Your task to perform on an android device: change text size in settings app Image 0: 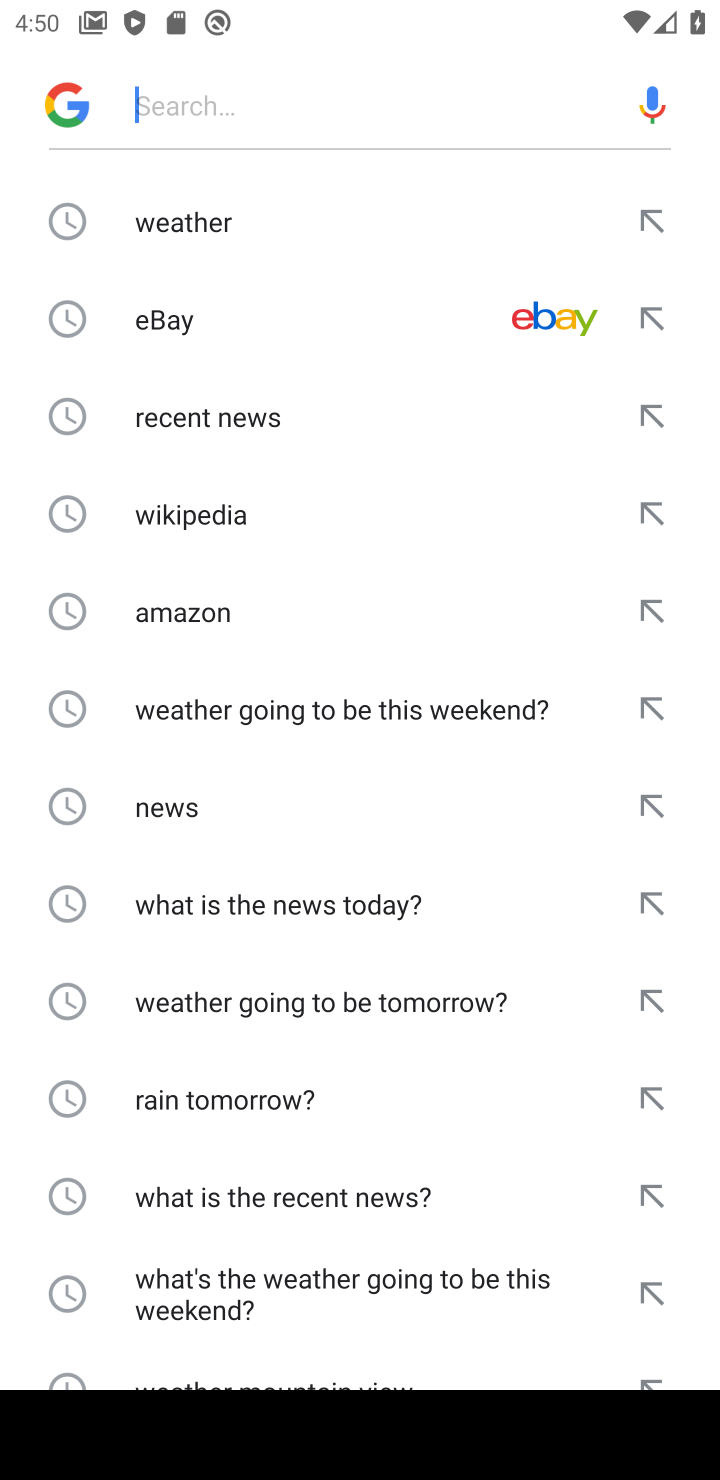
Step 0: press home button
Your task to perform on an android device: change text size in settings app Image 1: 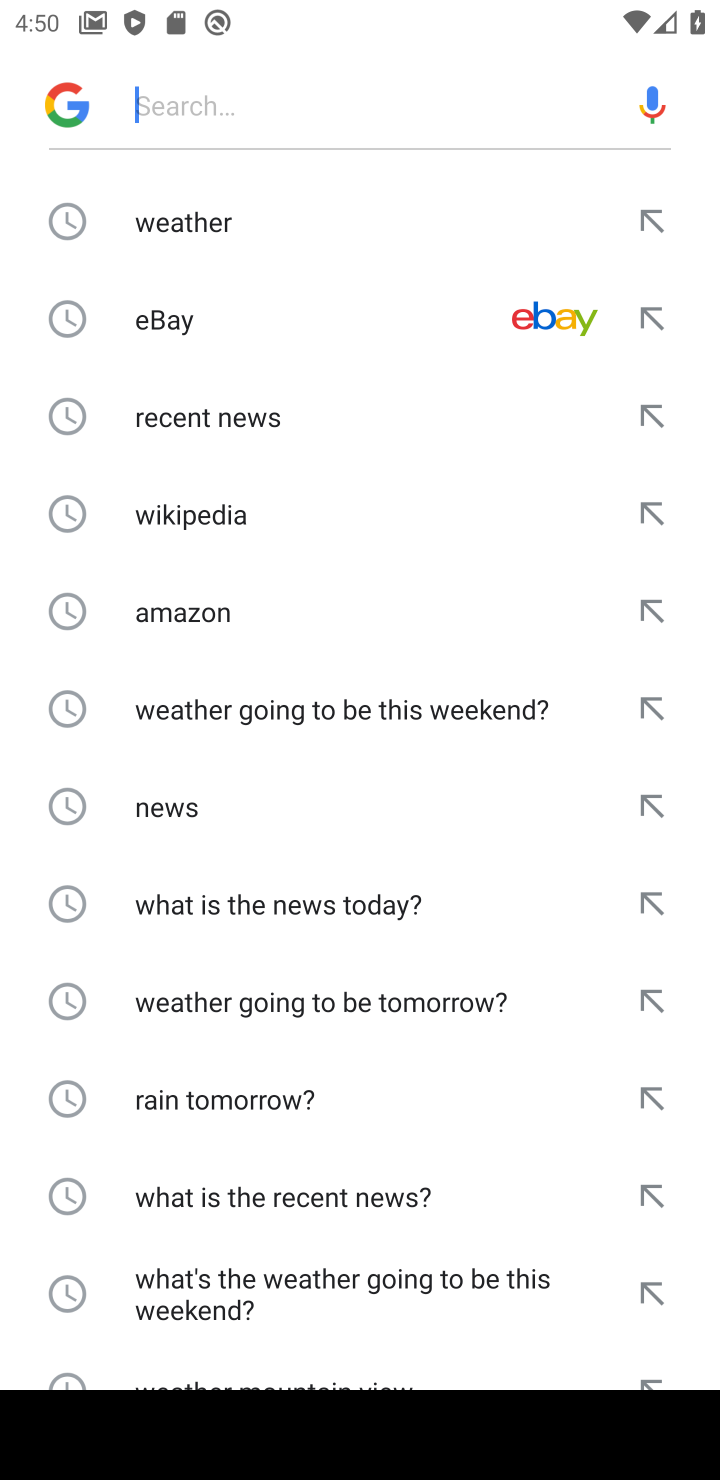
Step 1: press home button
Your task to perform on an android device: change text size in settings app Image 2: 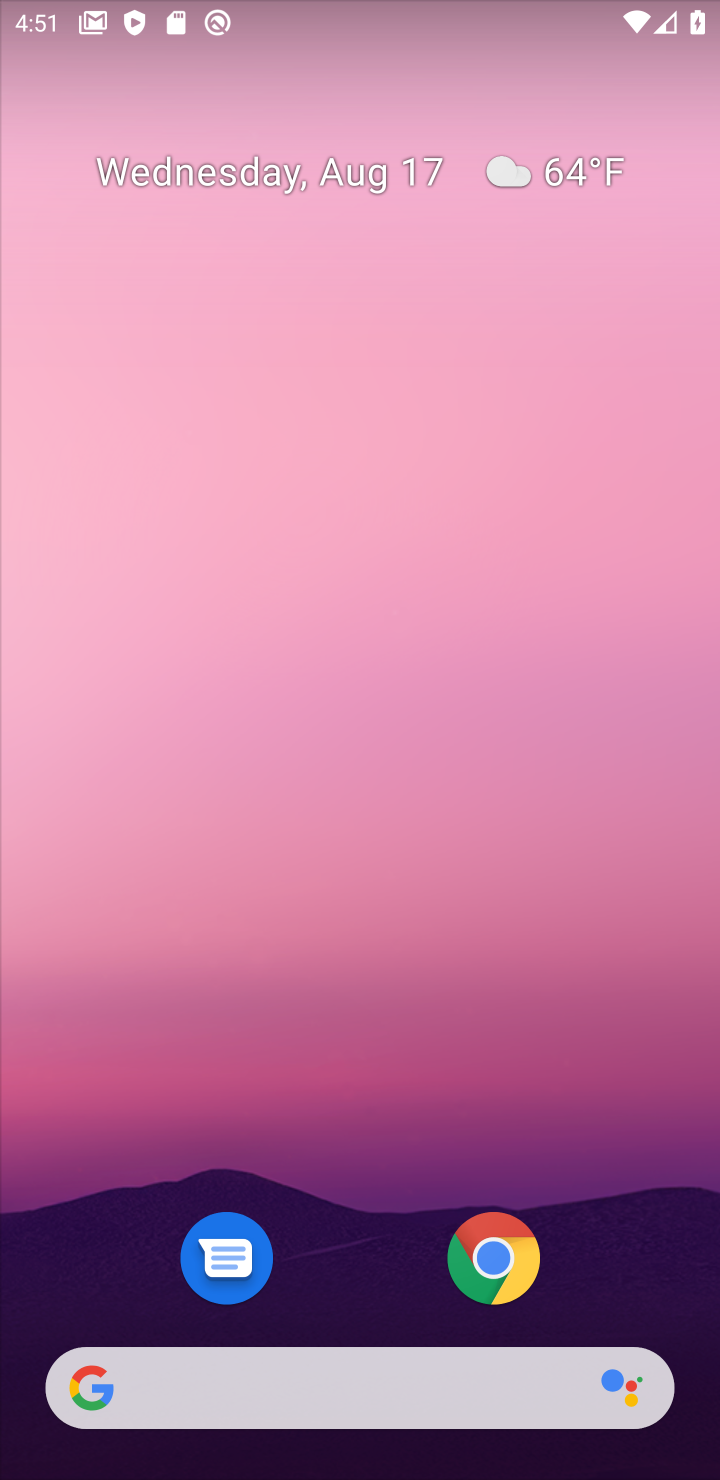
Step 2: drag from (307, 1152) to (427, 88)
Your task to perform on an android device: change text size in settings app Image 3: 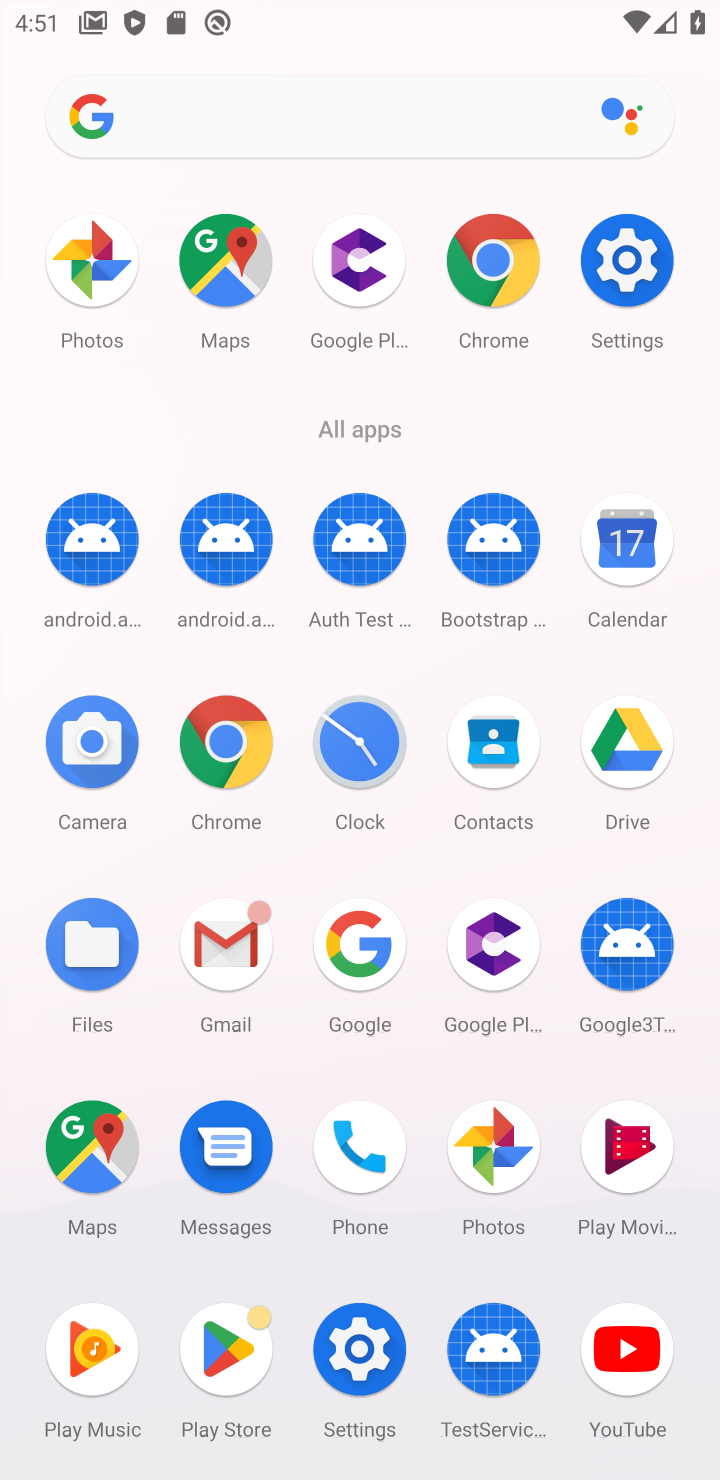
Step 3: click (355, 1328)
Your task to perform on an android device: change text size in settings app Image 4: 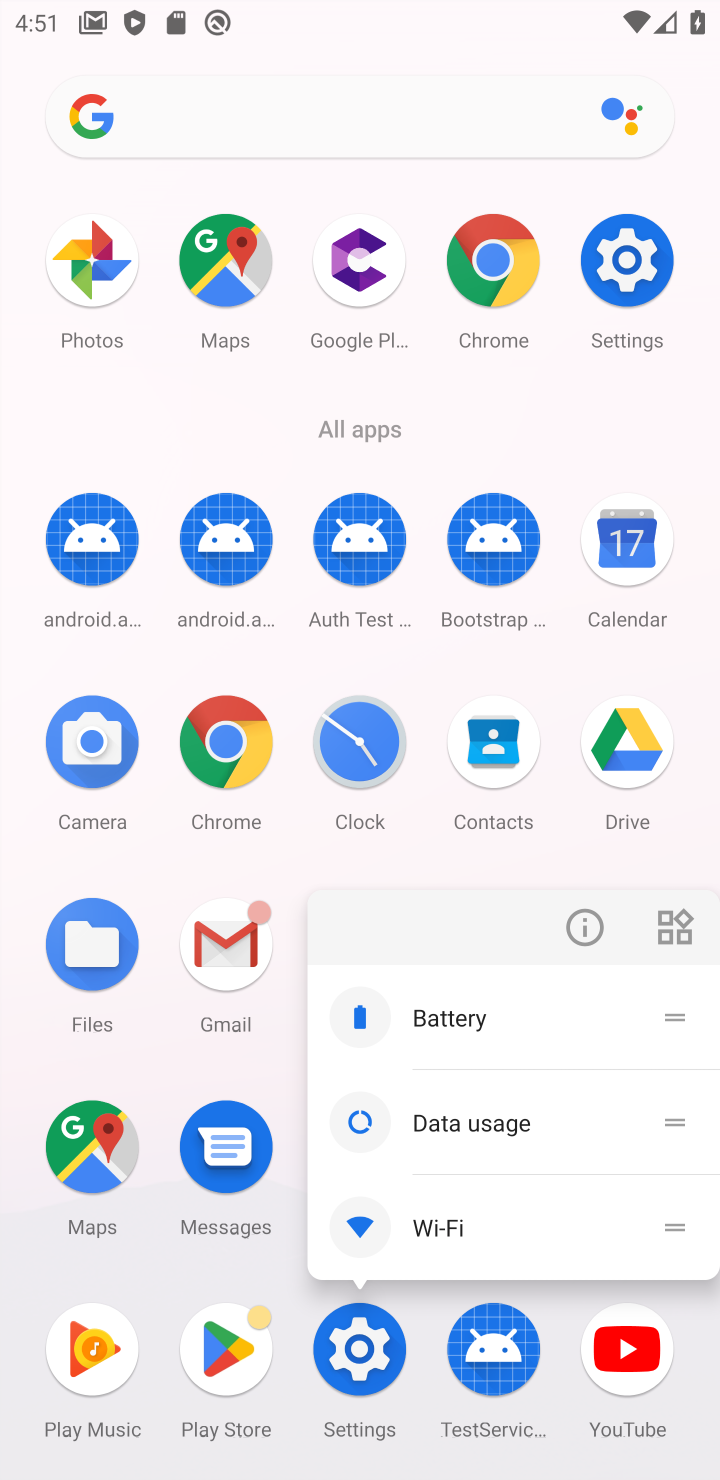
Step 4: click (354, 1343)
Your task to perform on an android device: change text size in settings app Image 5: 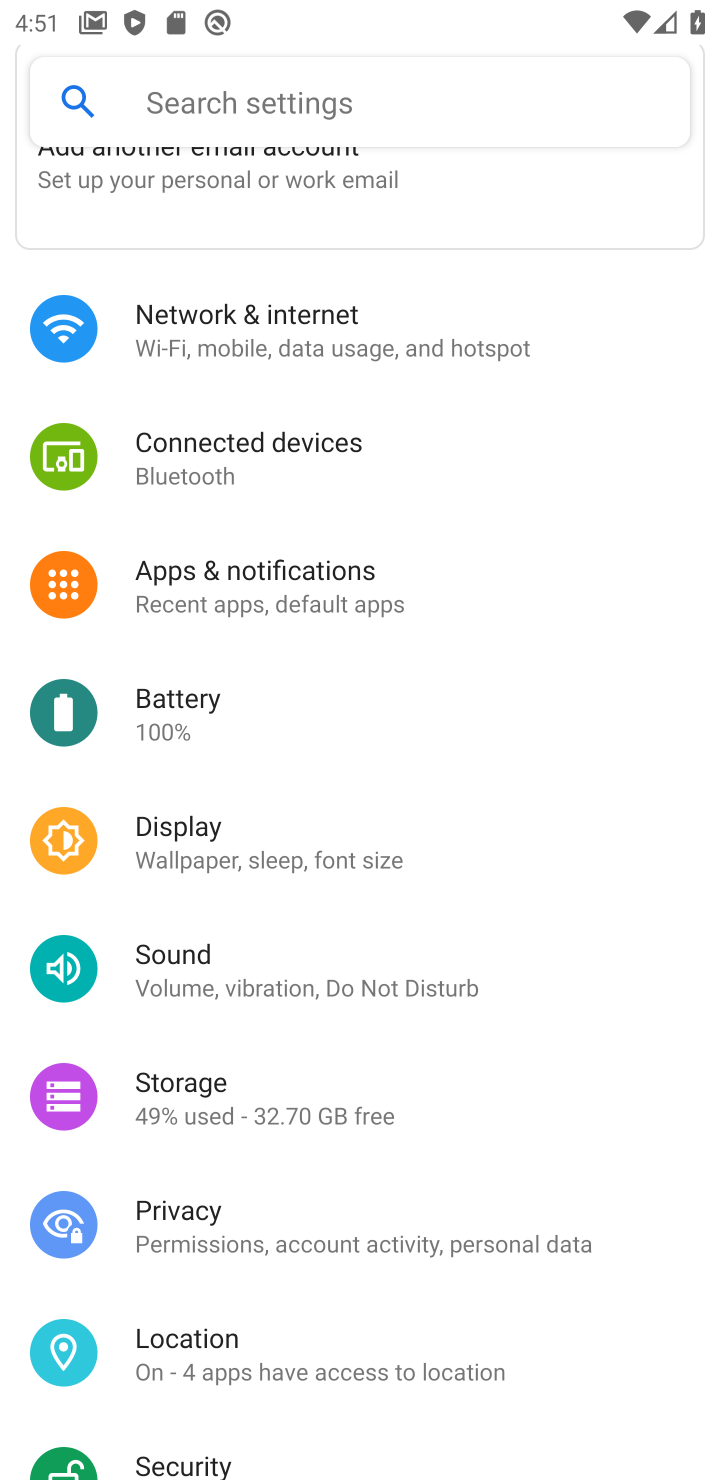
Step 5: click (196, 852)
Your task to perform on an android device: change text size in settings app Image 6: 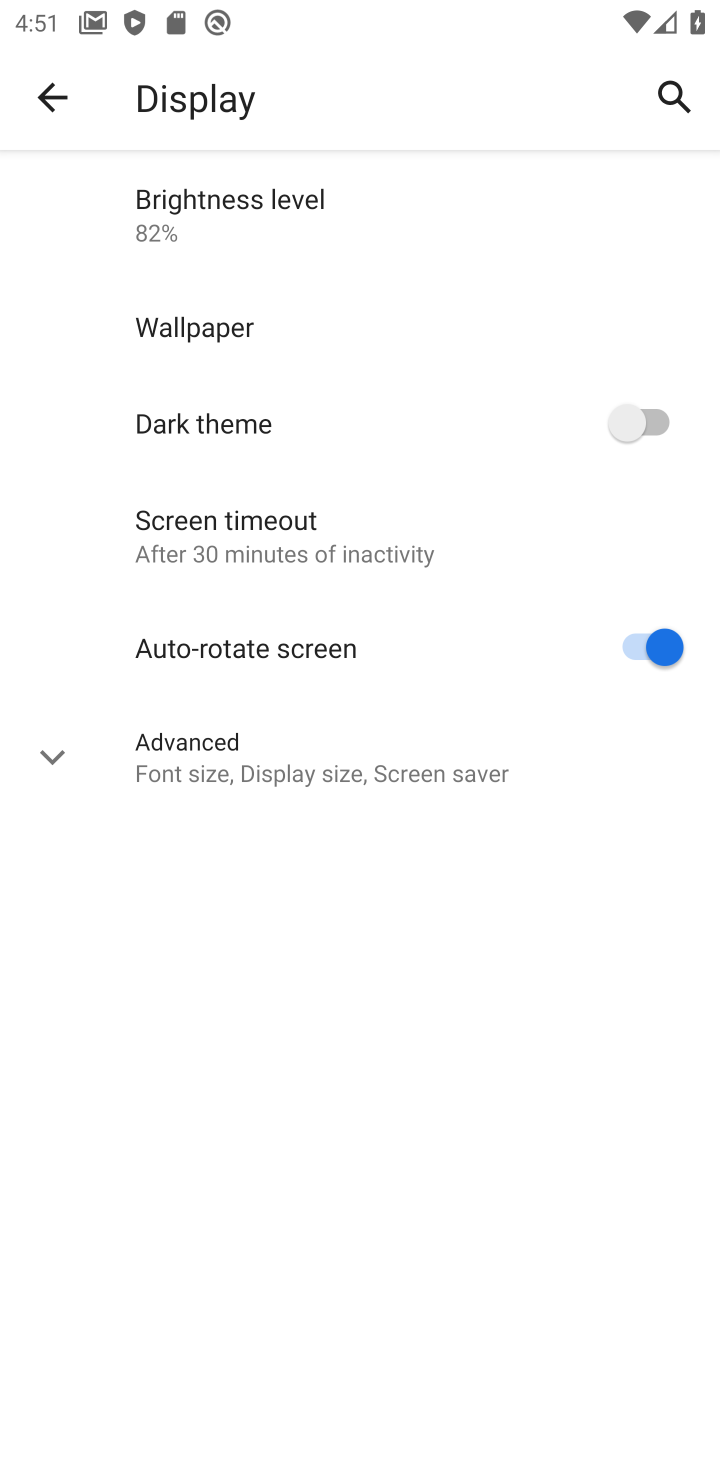
Step 6: click (209, 775)
Your task to perform on an android device: change text size in settings app Image 7: 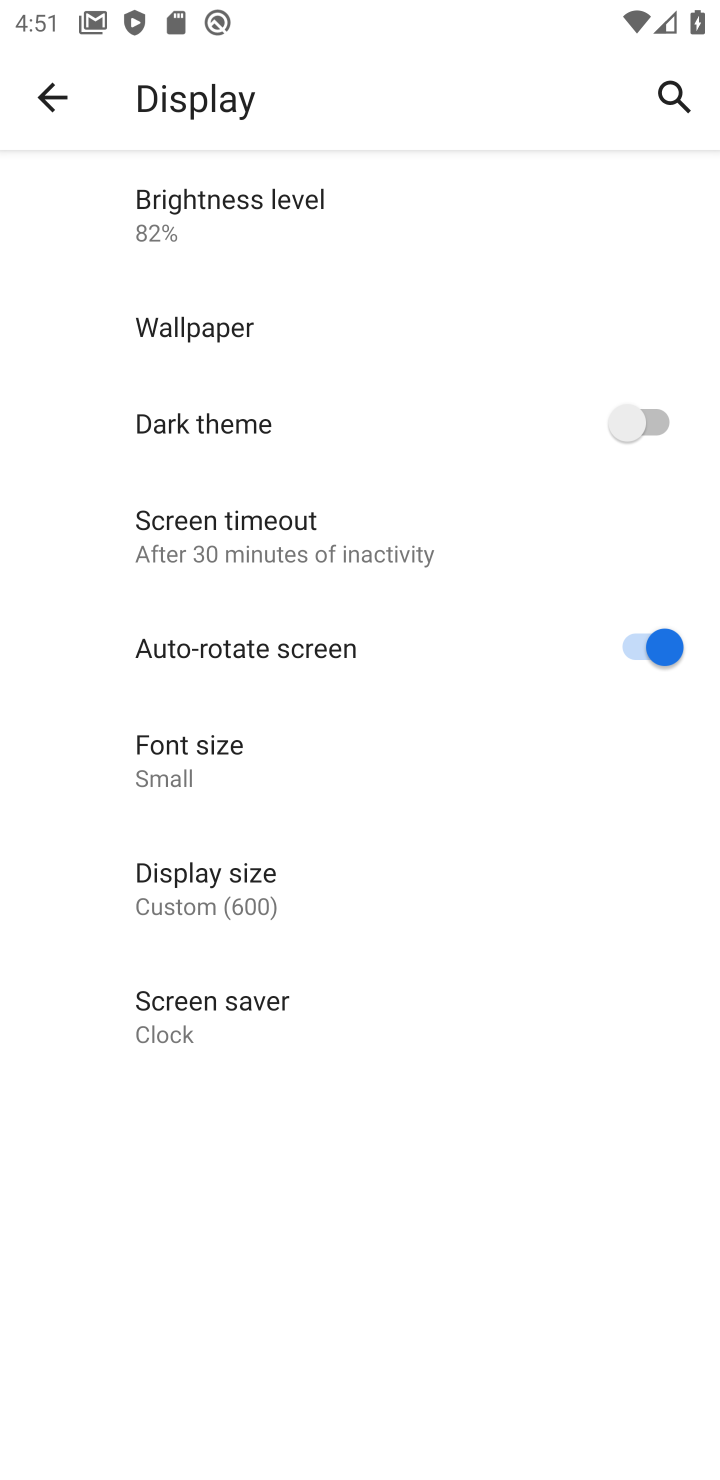
Step 7: click (209, 775)
Your task to perform on an android device: change text size in settings app Image 8: 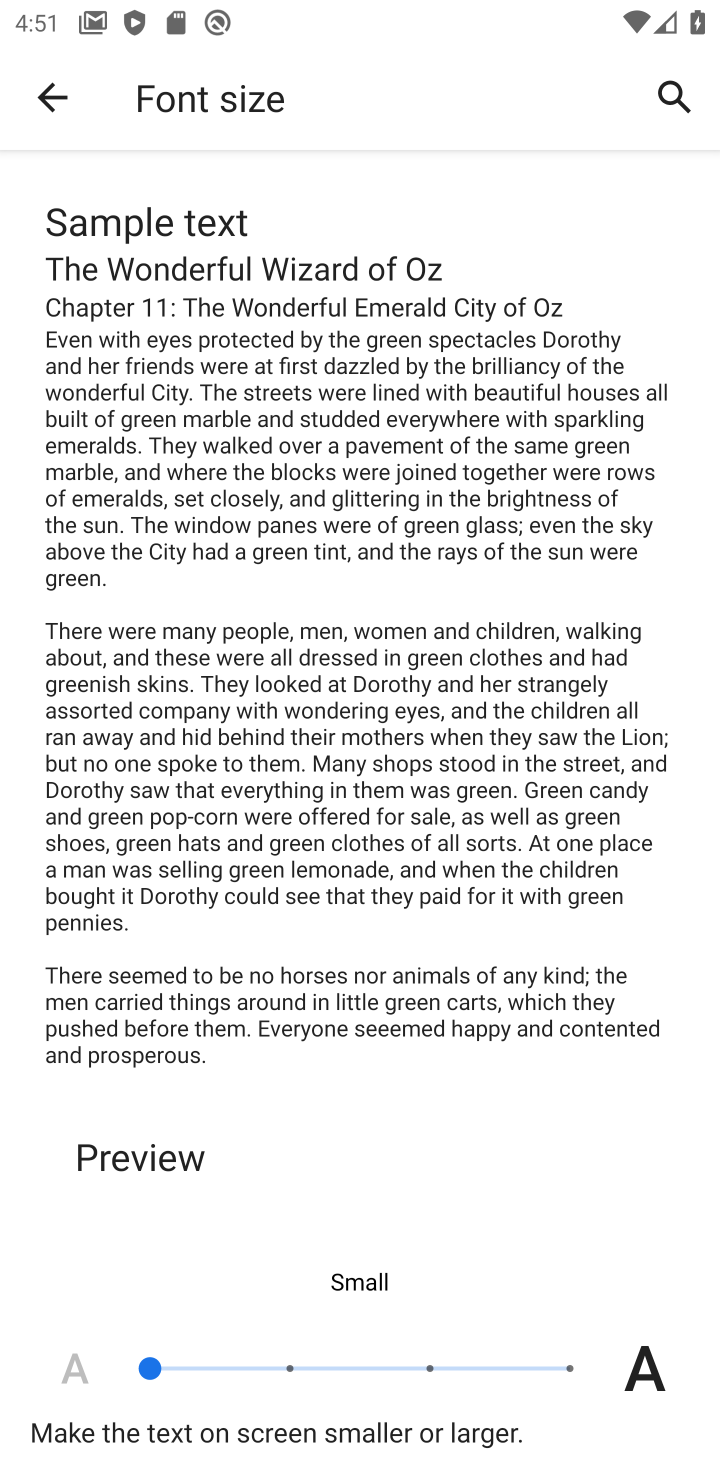
Step 8: click (245, 1367)
Your task to perform on an android device: change text size in settings app Image 9: 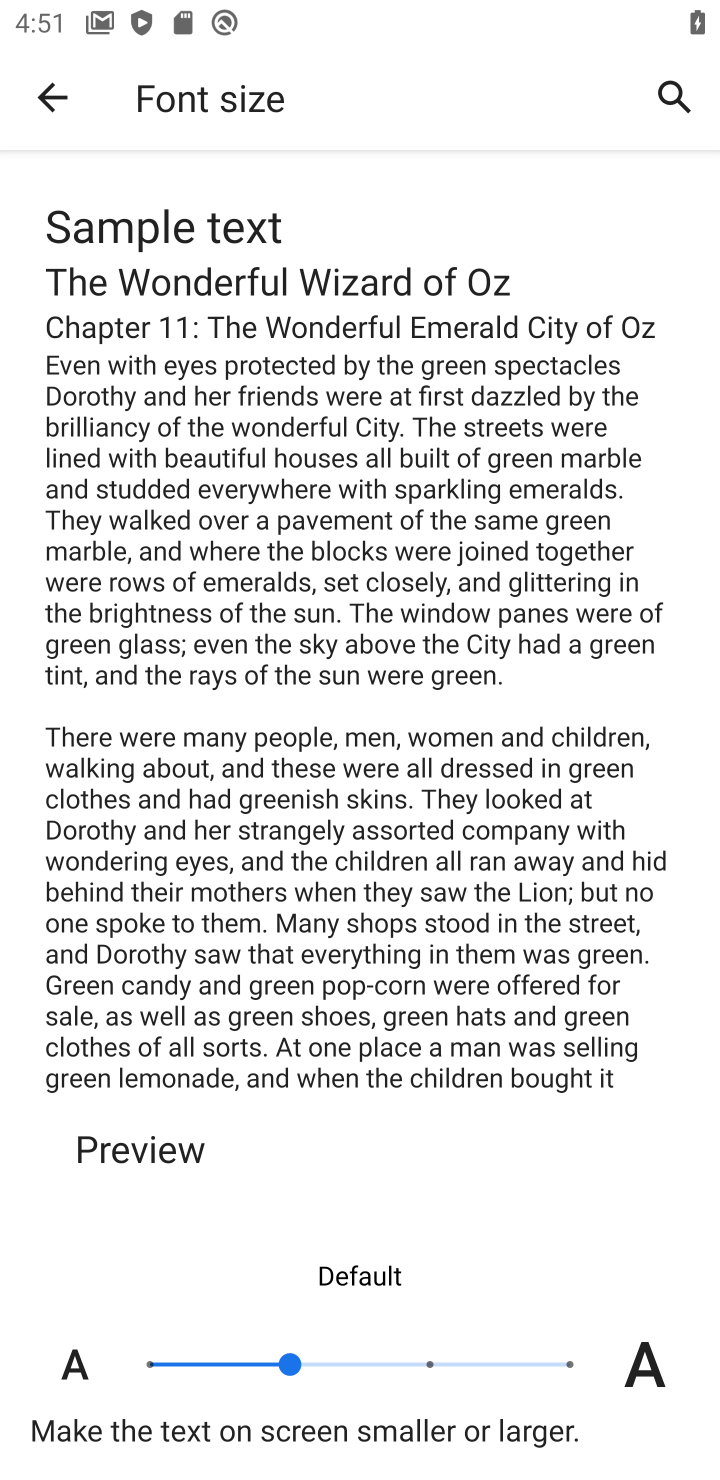
Step 9: task complete